Your task to perform on an android device: choose inbox layout in the gmail app Image 0: 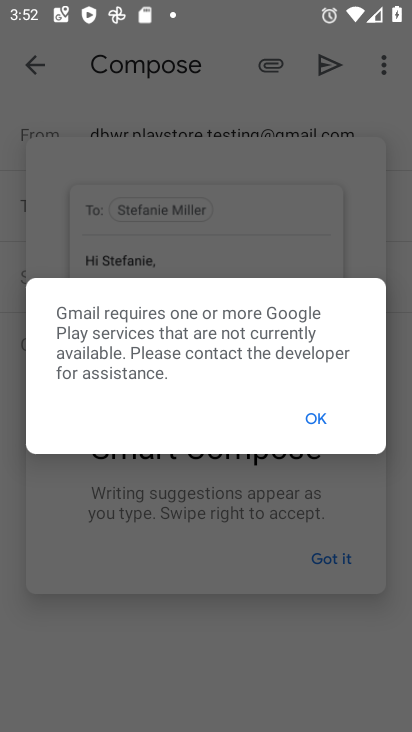
Step 0: press home button
Your task to perform on an android device: choose inbox layout in the gmail app Image 1: 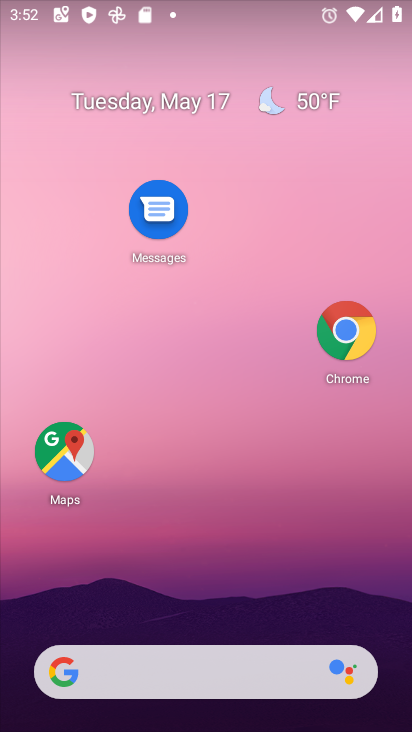
Step 1: drag from (205, 605) to (276, 121)
Your task to perform on an android device: choose inbox layout in the gmail app Image 2: 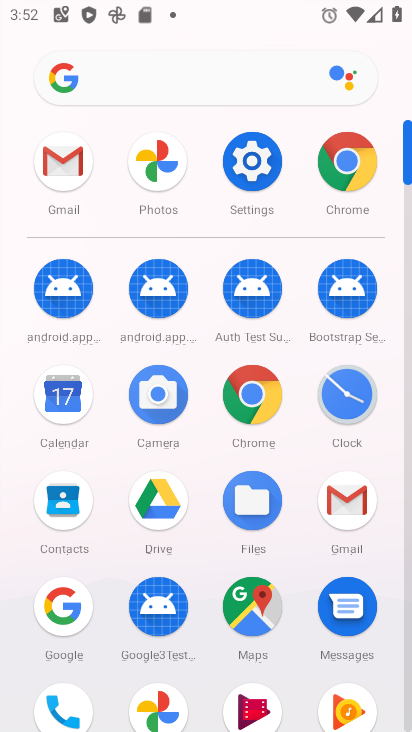
Step 2: click (57, 152)
Your task to perform on an android device: choose inbox layout in the gmail app Image 3: 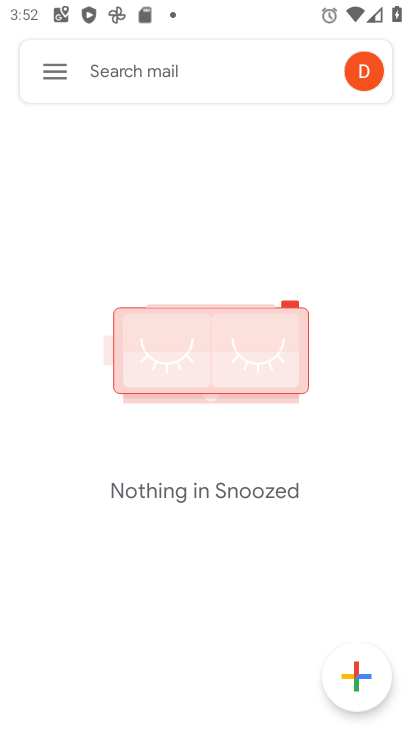
Step 3: click (66, 88)
Your task to perform on an android device: choose inbox layout in the gmail app Image 4: 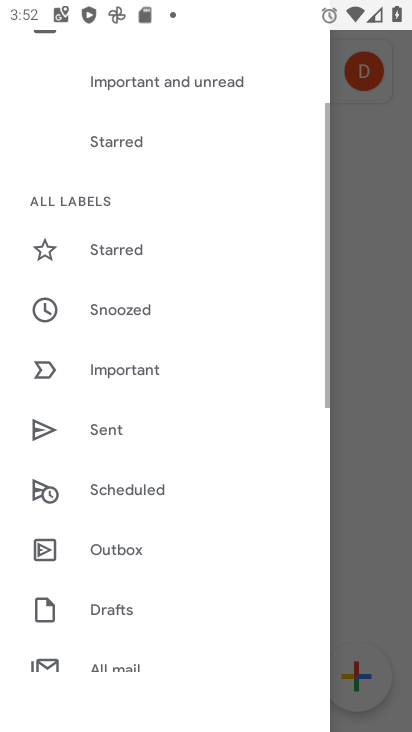
Step 4: drag from (93, 135) to (98, 605)
Your task to perform on an android device: choose inbox layout in the gmail app Image 5: 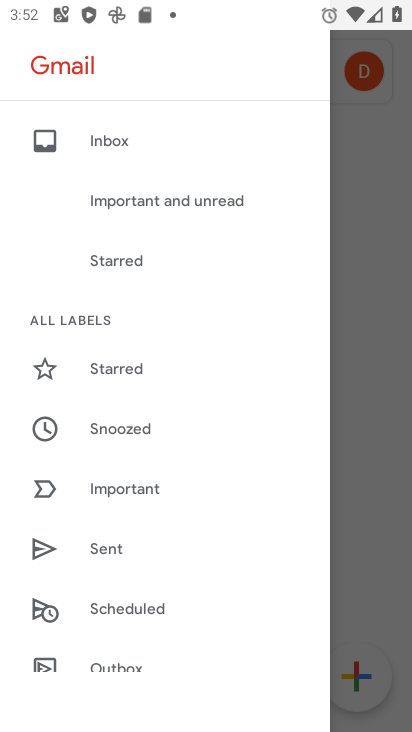
Step 5: click (126, 154)
Your task to perform on an android device: choose inbox layout in the gmail app Image 6: 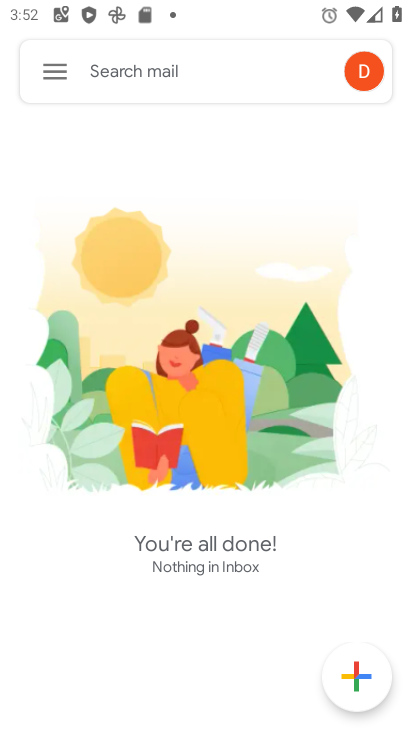
Step 6: task complete